Your task to perform on an android device: check data usage Image 0: 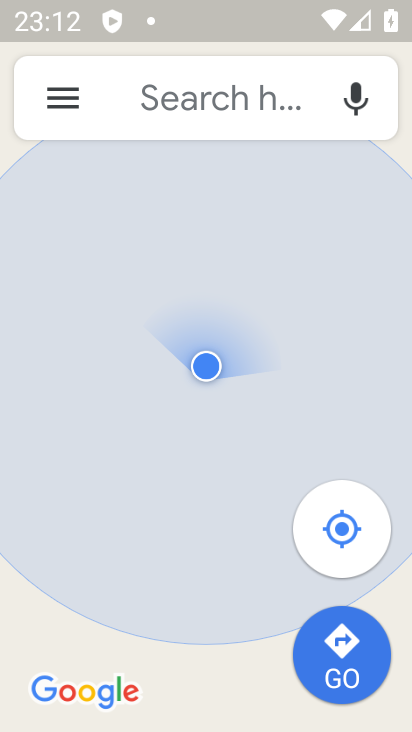
Step 0: press home button
Your task to perform on an android device: check data usage Image 1: 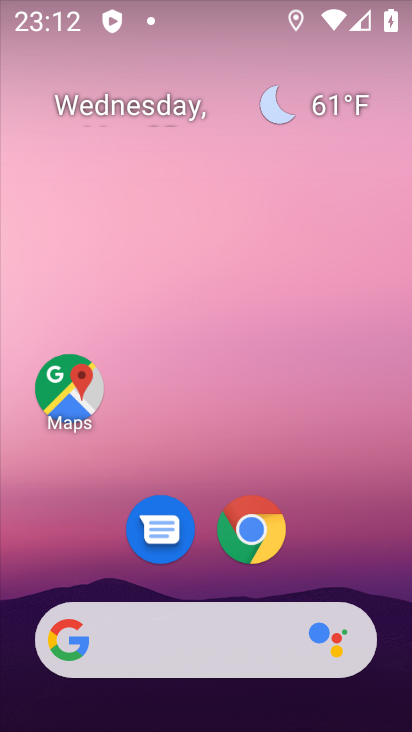
Step 1: drag from (379, 567) to (390, 215)
Your task to perform on an android device: check data usage Image 2: 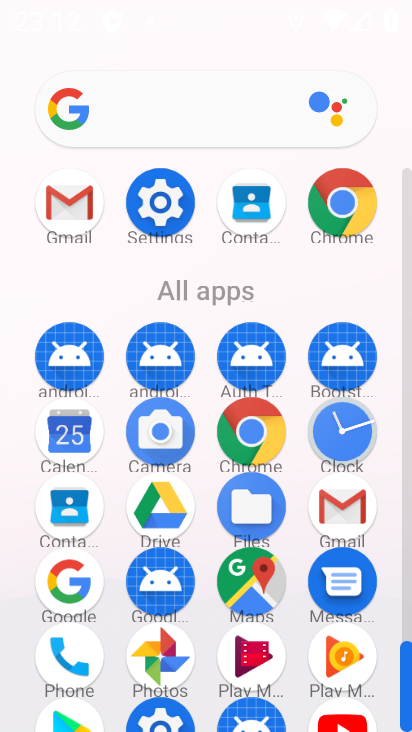
Step 2: click (167, 218)
Your task to perform on an android device: check data usage Image 3: 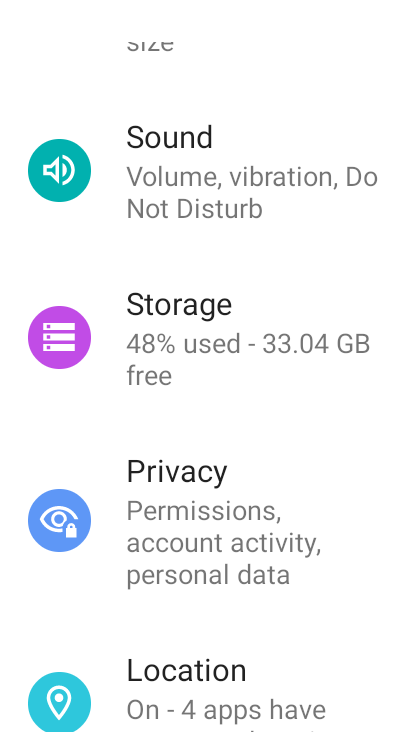
Step 3: drag from (356, 392) to (359, 466)
Your task to perform on an android device: check data usage Image 4: 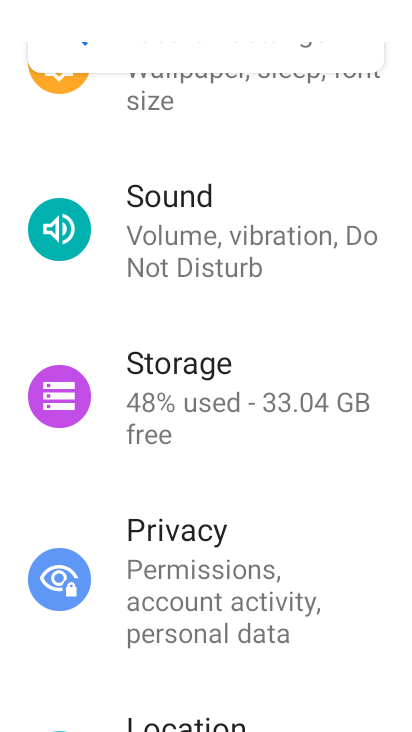
Step 4: drag from (378, 351) to (375, 455)
Your task to perform on an android device: check data usage Image 5: 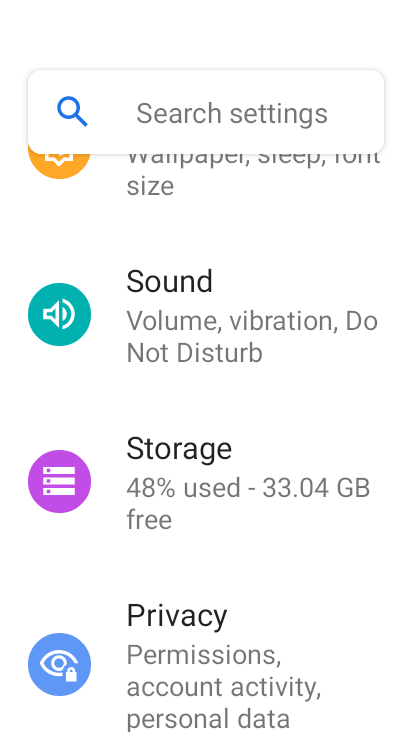
Step 5: drag from (384, 354) to (387, 449)
Your task to perform on an android device: check data usage Image 6: 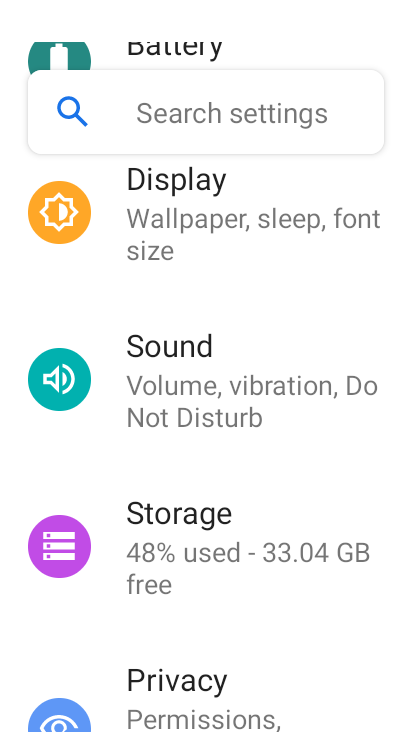
Step 6: drag from (376, 316) to (372, 436)
Your task to perform on an android device: check data usage Image 7: 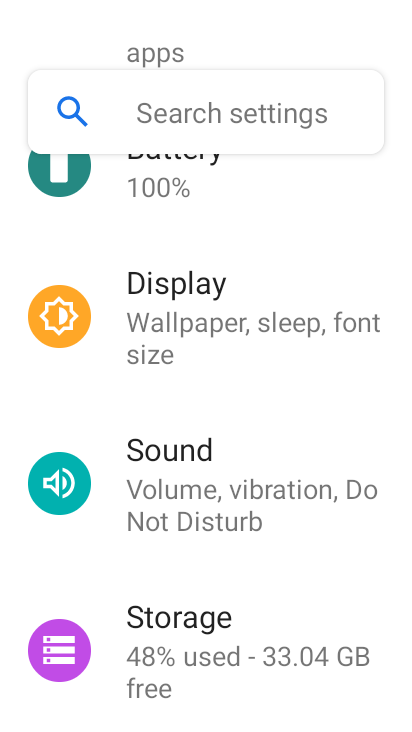
Step 7: drag from (360, 369) to (378, 458)
Your task to perform on an android device: check data usage Image 8: 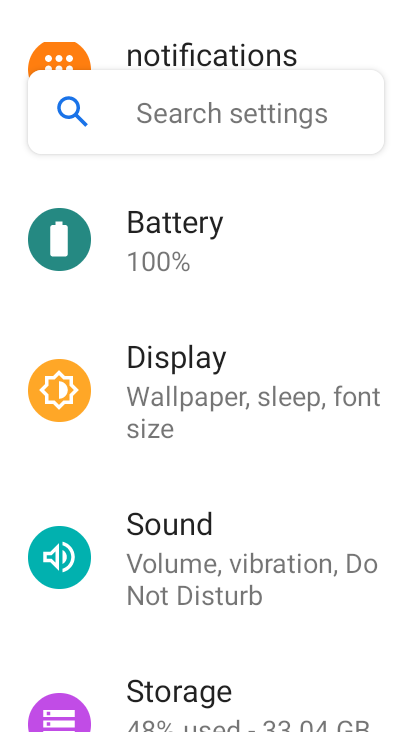
Step 8: drag from (373, 354) to (355, 461)
Your task to perform on an android device: check data usage Image 9: 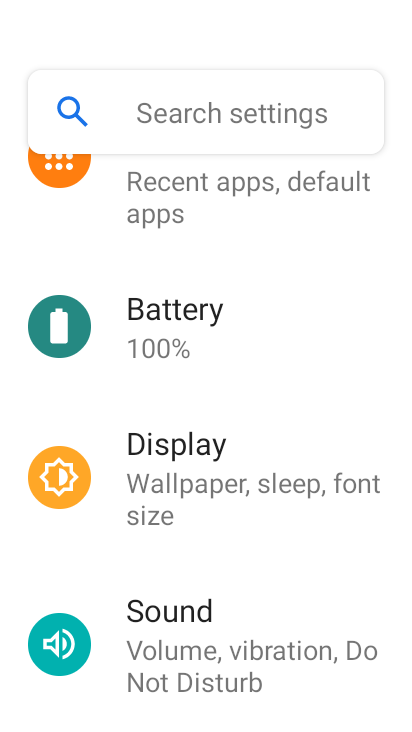
Step 9: drag from (355, 344) to (336, 447)
Your task to perform on an android device: check data usage Image 10: 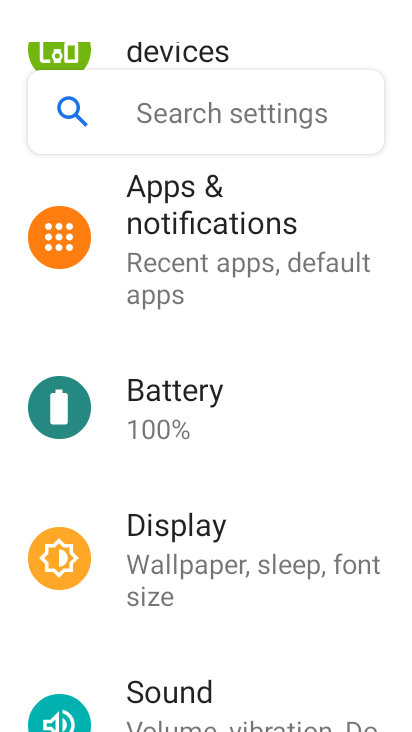
Step 10: drag from (324, 351) to (341, 450)
Your task to perform on an android device: check data usage Image 11: 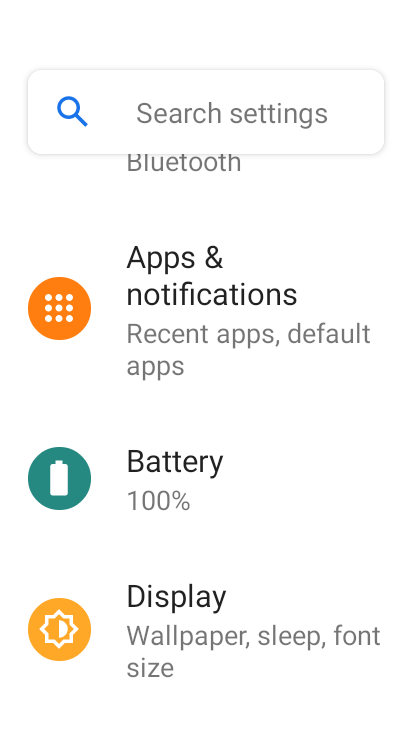
Step 11: drag from (358, 349) to (345, 444)
Your task to perform on an android device: check data usage Image 12: 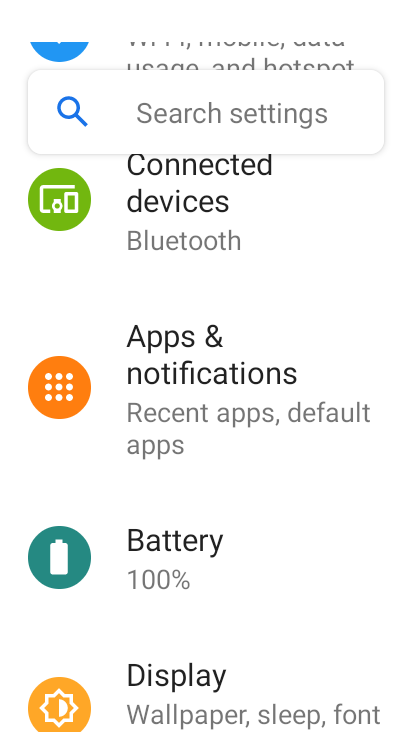
Step 12: drag from (351, 341) to (362, 426)
Your task to perform on an android device: check data usage Image 13: 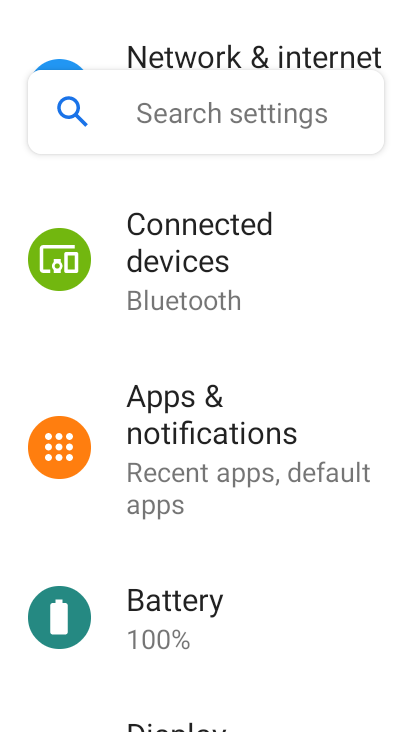
Step 13: drag from (357, 289) to (365, 375)
Your task to perform on an android device: check data usage Image 14: 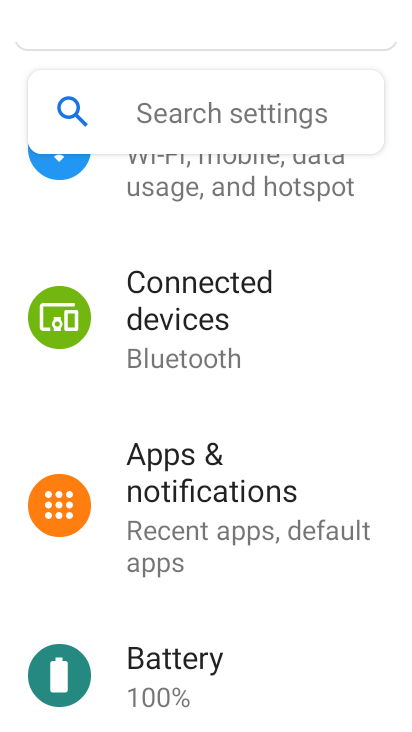
Step 14: drag from (366, 282) to (369, 368)
Your task to perform on an android device: check data usage Image 15: 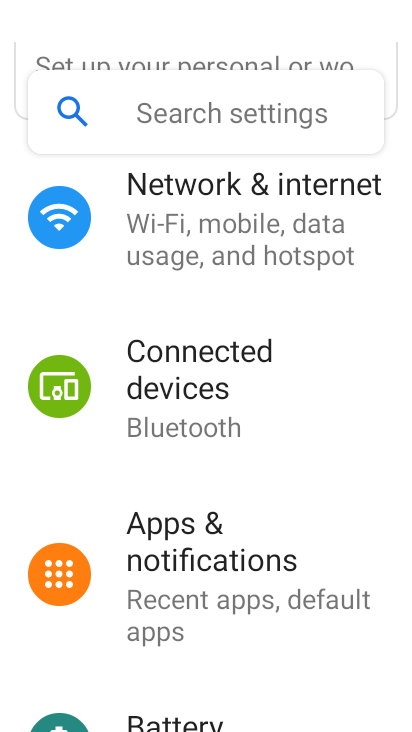
Step 15: drag from (372, 271) to (370, 370)
Your task to perform on an android device: check data usage Image 16: 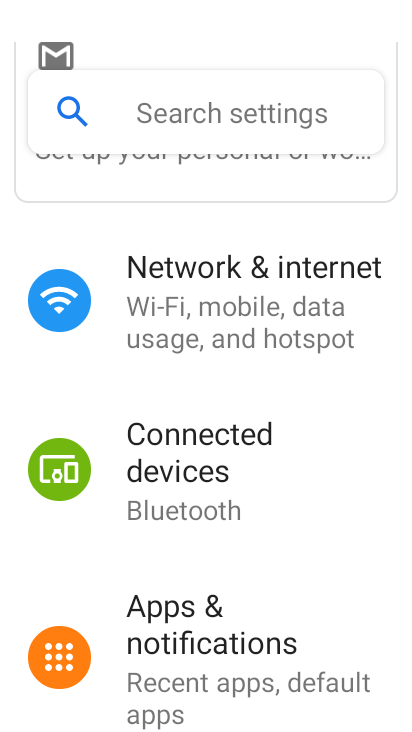
Step 16: drag from (387, 294) to (360, 413)
Your task to perform on an android device: check data usage Image 17: 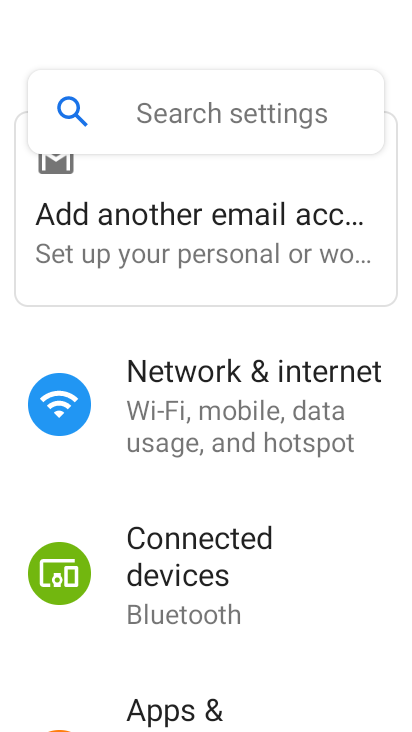
Step 17: click (310, 428)
Your task to perform on an android device: check data usage Image 18: 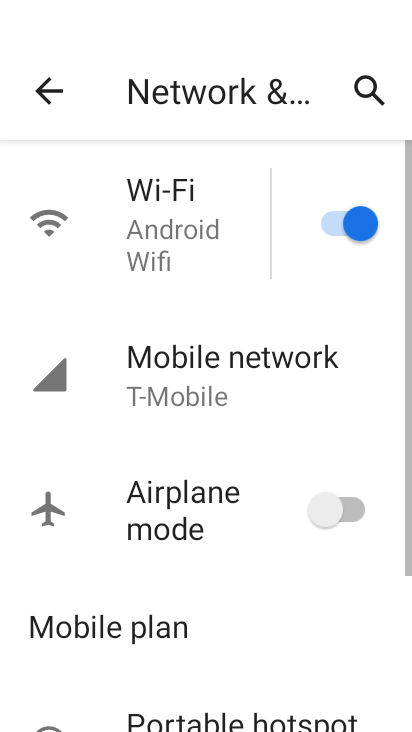
Step 18: drag from (310, 428) to (297, 349)
Your task to perform on an android device: check data usage Image 19: 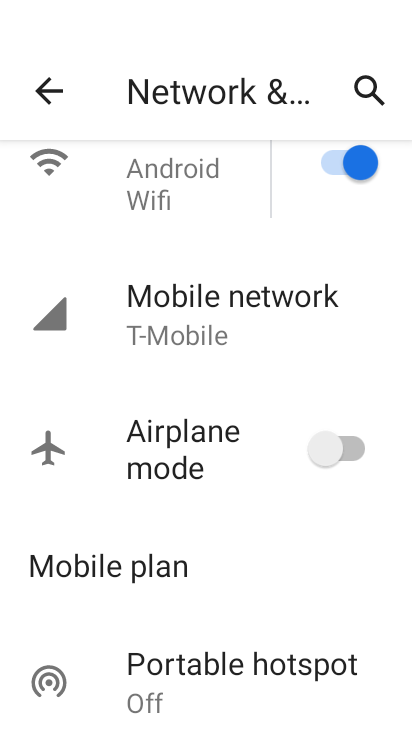
Step 19: click (247, 309)
Your task to perform on an android device: check data usage Image 20: 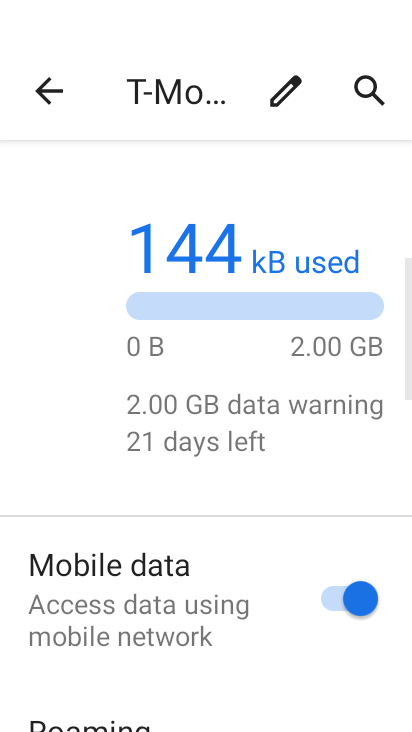
Step 20: drag from (250, 432) to (255, 326)
Your task to perform on an android device: check data usage Image 21: 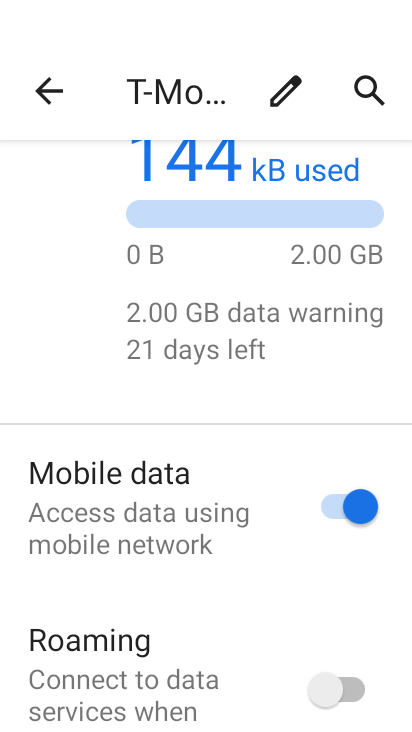
Step 21: drag from (252, 433) to (267, 337)
Your task to perform on an android device: check data usage Image 22: 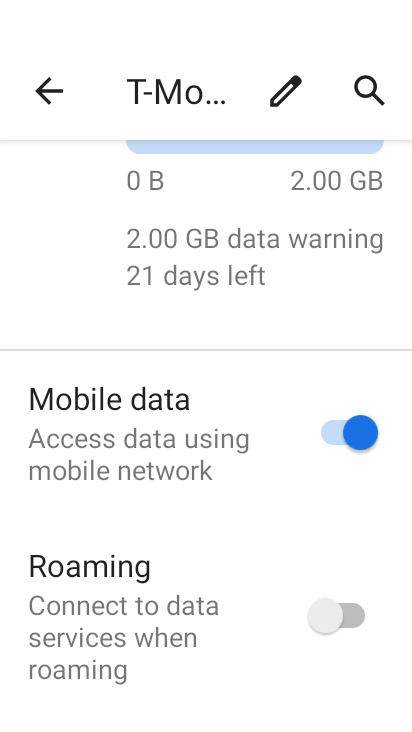
Step 22: drag from (250, 484) to (253, 393)
Your task to perform on an android device: check data usage Image 23: 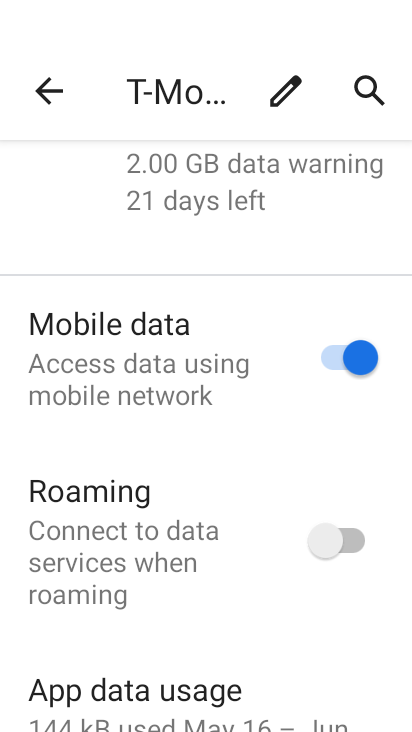
Step 23: drag from (237, 488) to (250, 376)
Your task to perform on an android device: check data usage Image 24: 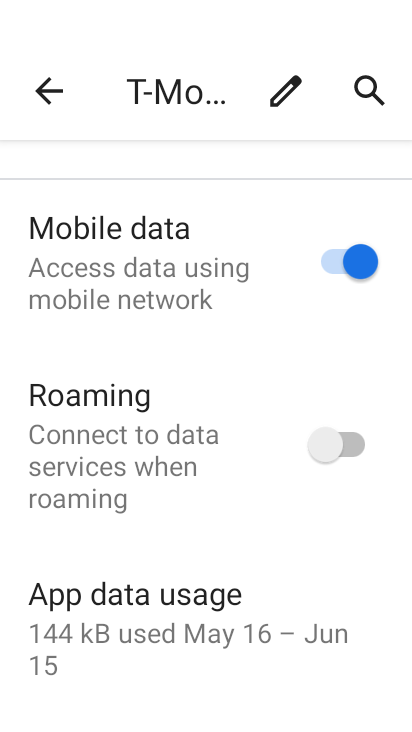
Step 24: drag from (246, 489) to (259, 378)
Your task to perform on an android device: check data usage Image 25: 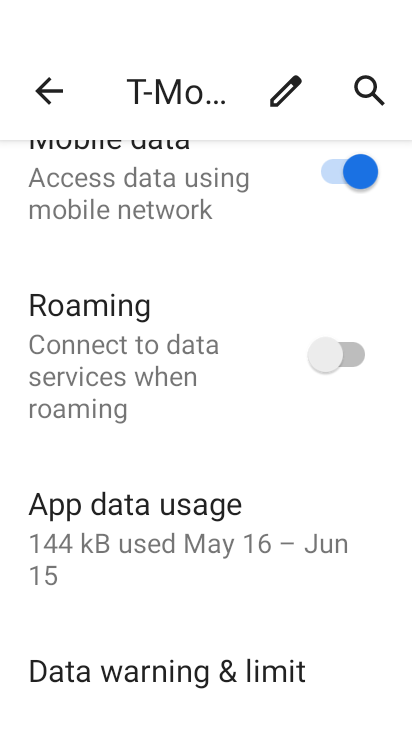
Step 25: drag from (262, 502) to (282, 366)
Your task to perform on an android device: check data usage Image 26: 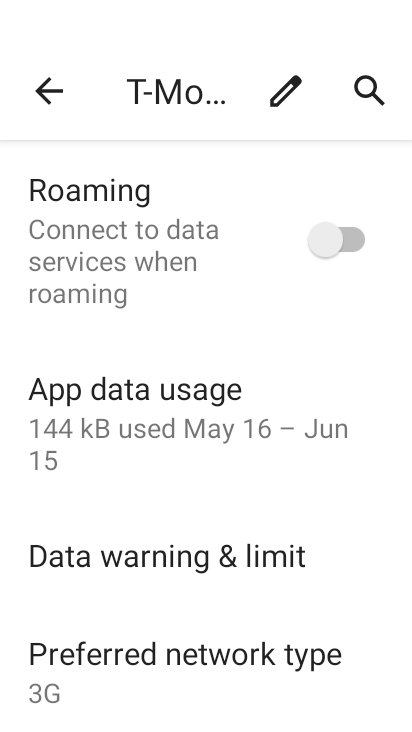
Step 26: click (226, 413)
Your task to perform on an android device: check data usage Image 27: 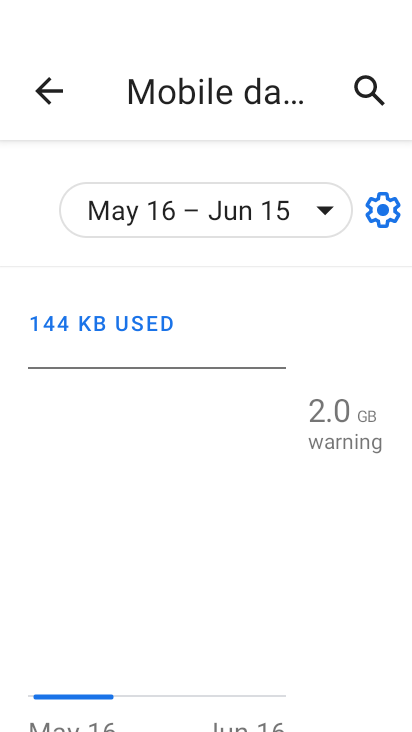
Step 27: task complete